Your task to perform on an android device: set the timer Image 0: 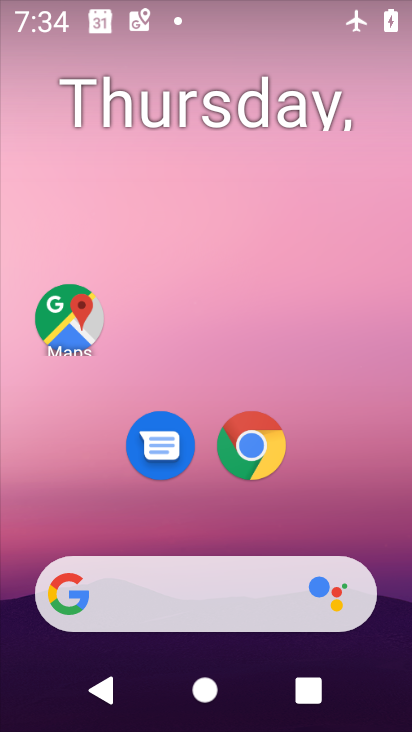
Step 0: drag from (385, 633) to (357, 309)
Your task to perform on an android device: set the timer Image 1: 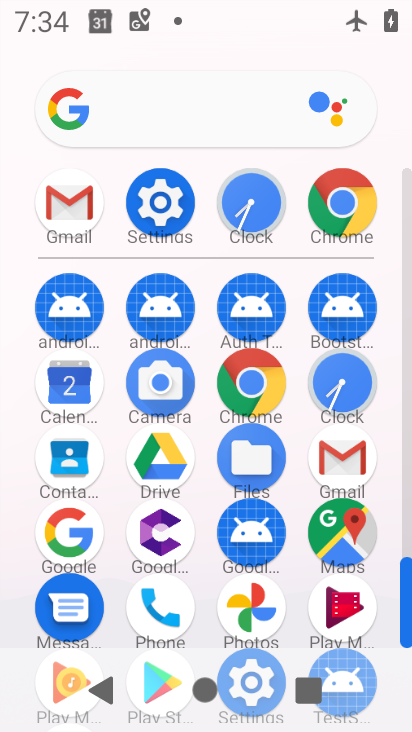
Step 1: click (348, 388)
Your task to perform on an android device: set the timer Image 2: 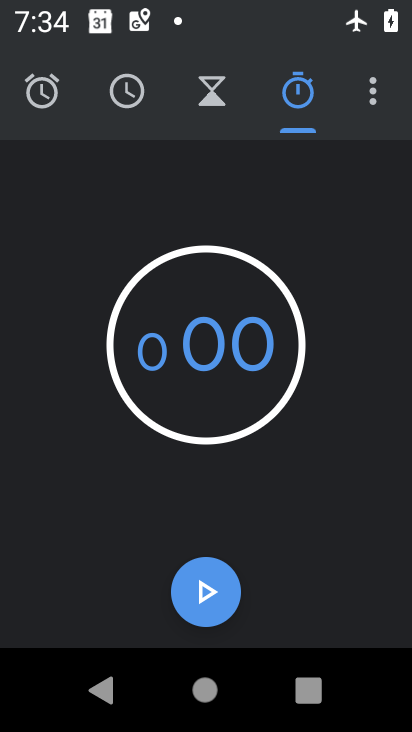
Step 2: click (375, 95)
Your task to perform on an android device: set the timer Image 3: 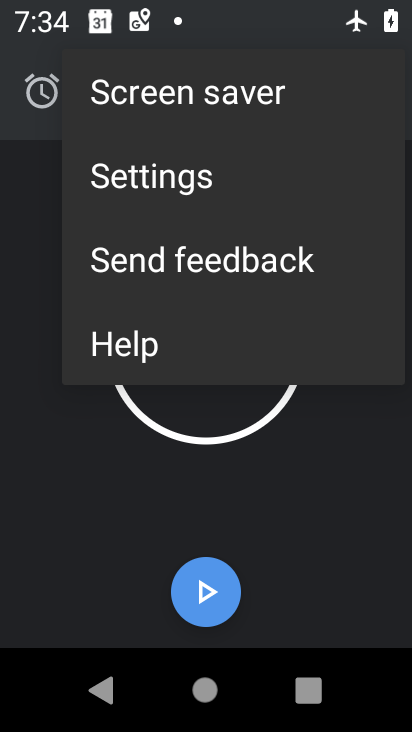
Step 3: click (199, 183)
Your task to perform on an android device: set the timer Image 4: 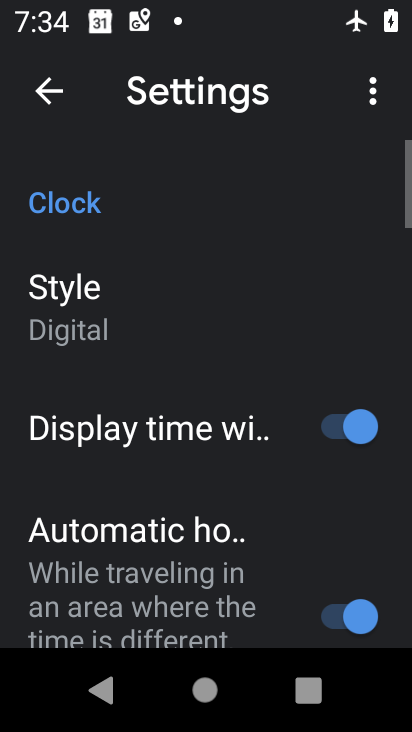
Step 4: drag from (256, 590) to (256, 495)
Your task to perform on an android device: set the timer Image 5: 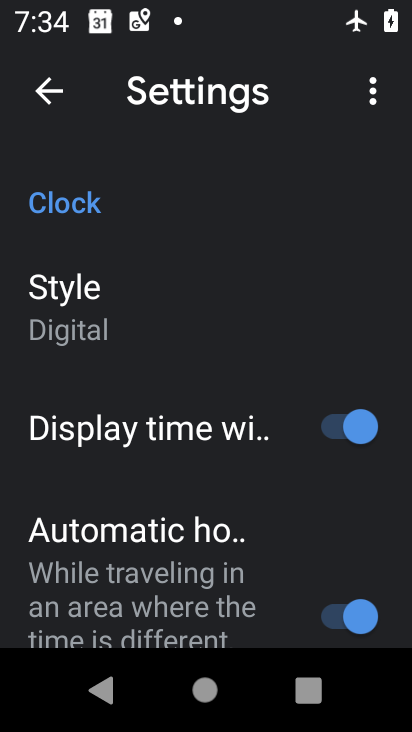
Step 5: drag from (134, 549) to (196, 87)
Your task to perform on an android device: set the timer Image 6: 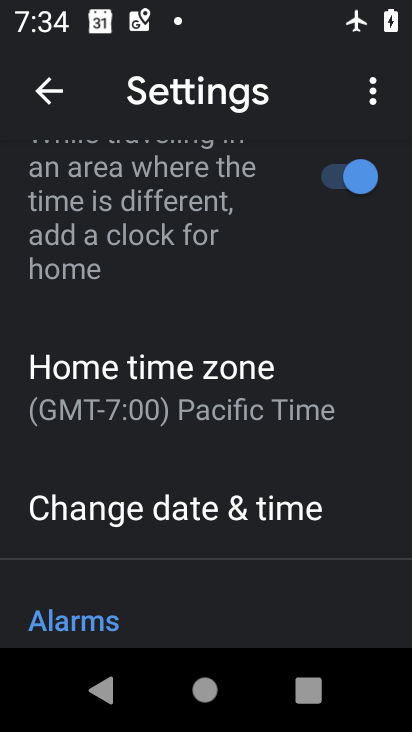
Step 6: click (179, 412)
Your task to perform on an android device: set the timer Image 7: 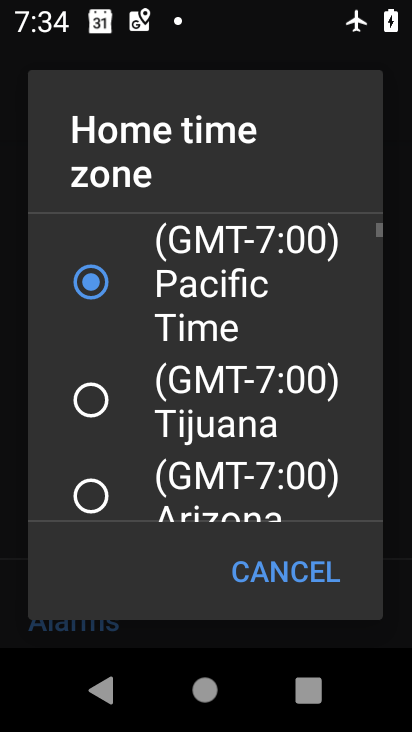
Step 7: click (82, 489)
Your task to perform on an android device: set the timer Image 8: 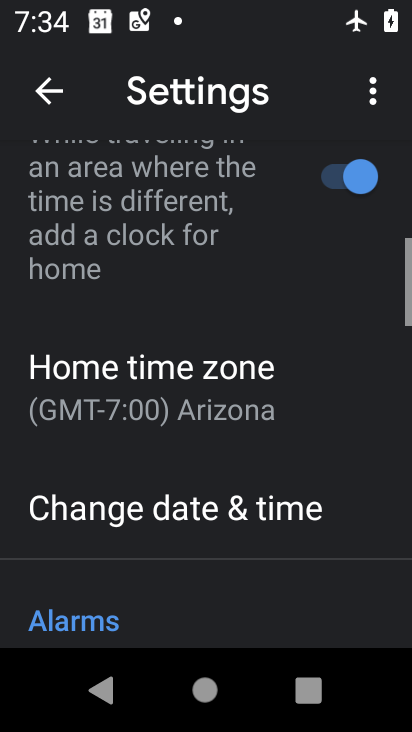
Step 8: task complete